Your task to perform on an android device: Search for "dell alienware" on costco, select the first entry, add it to the cart, then select checkout. Image 0: 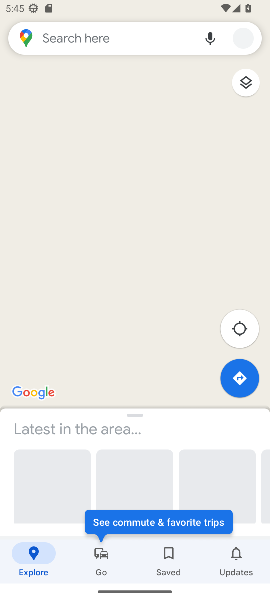
Step 0: press home button
Your task to perform on an android device: Search for "dell alienware" on costco, select the first entry, add it to the cart, then select checkout. Image 1: 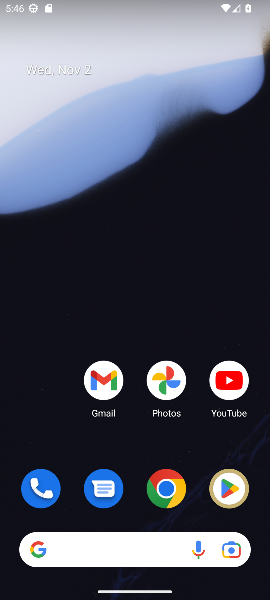
Step 1: click (172, 480)
Your task to perform on an android device: Search for "dell alienware" on costco, select the first entry, add it to the cart, then select checkout. Image 2: 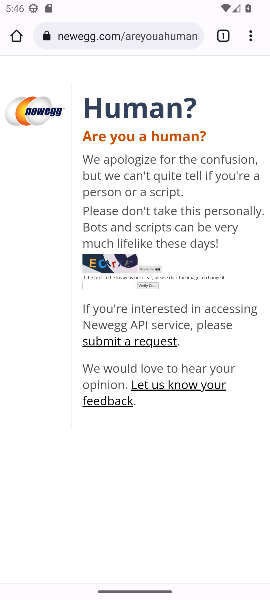
Step 2: click (177, 35)
Your task to perform on an android device: Search for "dell alienware" on costco, select the first entry, add it to the cart, then select checkout. Image 3: 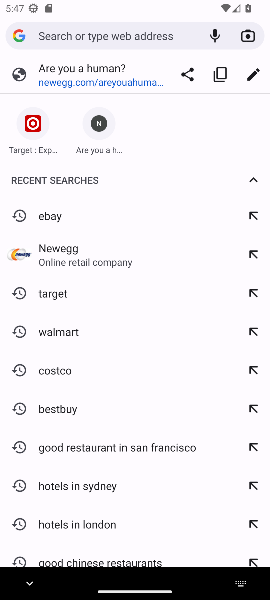
Step 3: type "costco"
Your task to perform on an android device: Search for "dell alienware" on costco, select the first entry, add it to the cart, then select checkout. Image 4: 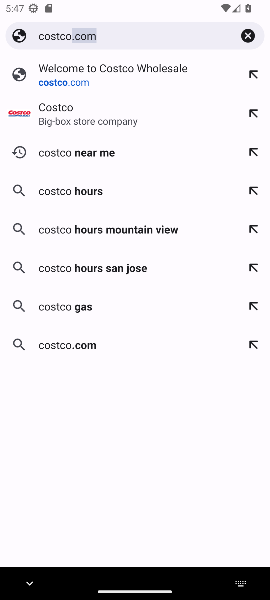
Step 4: click (124, 78)
Your task to perform on an android device: Search for "dell alienware" on costco, select the first entry, add it to the cart, then select checkout. Image 5: 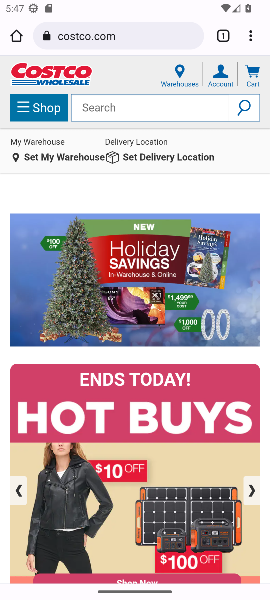
Step 5: click (155, 111)
Your task to perform on an android device: Search for "dell alienware" on costco, select the first entry, add it to the cart, then select checkout. Image 6: 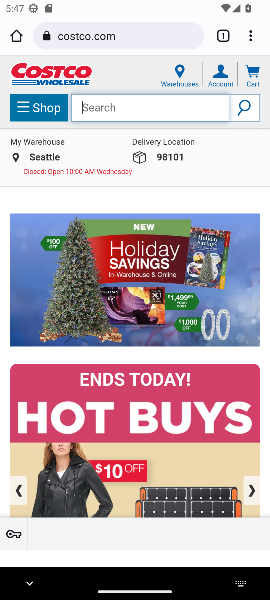
Step 6: type "dell alienware"
Your task to perform on an android device: Search for "dell alienware" on costco, select the first entry, add it to the cart, then select checkout. Image 7: 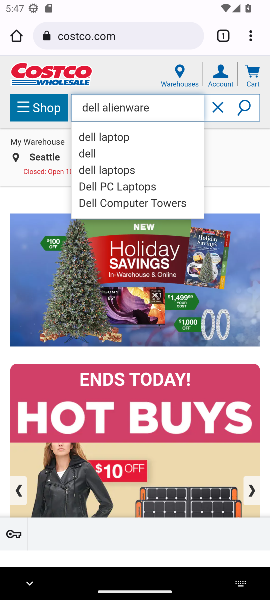
Step 7: click (121, 137)
Your task to perform on an android device: Search for "dell alienware" on costco, select the first entry, add it to the cart, then select checkout. Image 8: 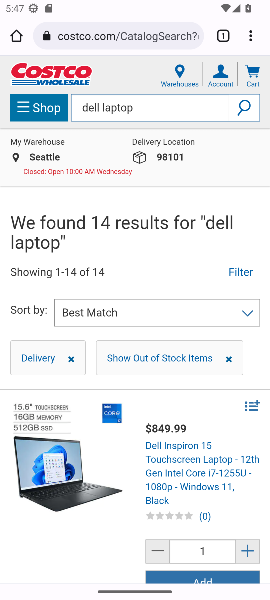
Step 8: drag from (193, 461) to (193, 173)
Your task to perform on an android device: Search for "dell alienware" on costco, select the first entry, add it to the cart, then select checkout. Image 9: 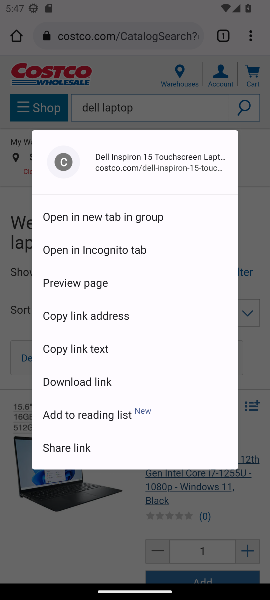
Step 9: click (250, 131)
Your task to perform on an android device: Search for "dell alienware" on costco, select the first entry, add it to the cart, then select checkout. Image 10: 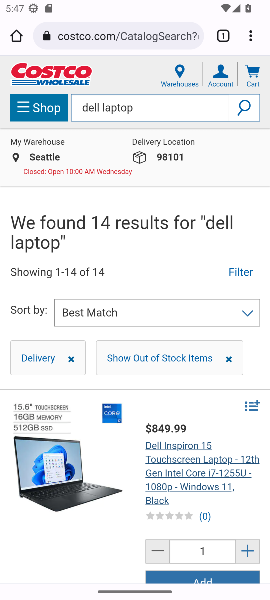
Step 10: drag from (94, 459) to (126, 115)
Your task to perform on an android device: Search for "dell alienware" on costco, select the first entry, add it to the cart, then select checkout. Image 11: 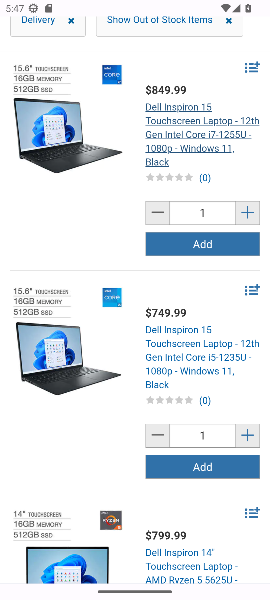
Step 11: click (197, 248)
Your task to perform on an android device: Search for "dell alienware" on costco, select the first entry, add it to the cart, then select checkout. Image 12: 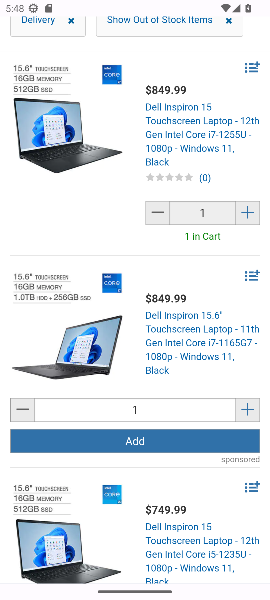
Step 12: task complete